Your task to perform on an android device: turn off data saver in the chrome app Image 0: 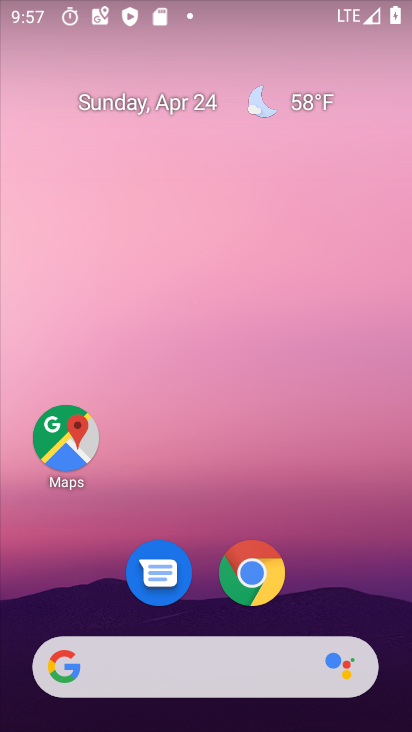
Step 0: drag from (336, 558) to (354, 8)
Your task to perform on an android device: turn off data saver in the chrome app Image 1: 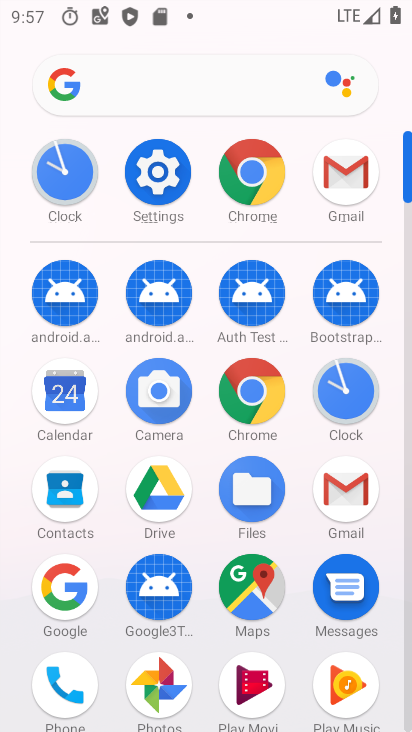
Step 1: click (255, 398)
Your task to perform on an android device: turn off data saver in the chrome app Image 2: 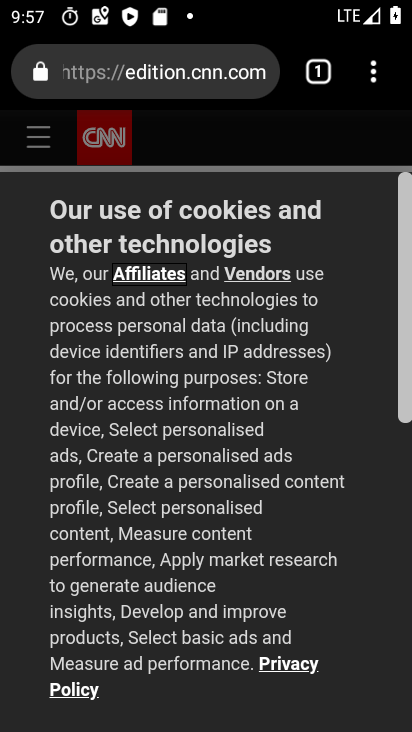
Step 2: drag from (377, 78) to (153, 559)
Your task to perform on an android device: turn off data saver in the chrome app Image 3: 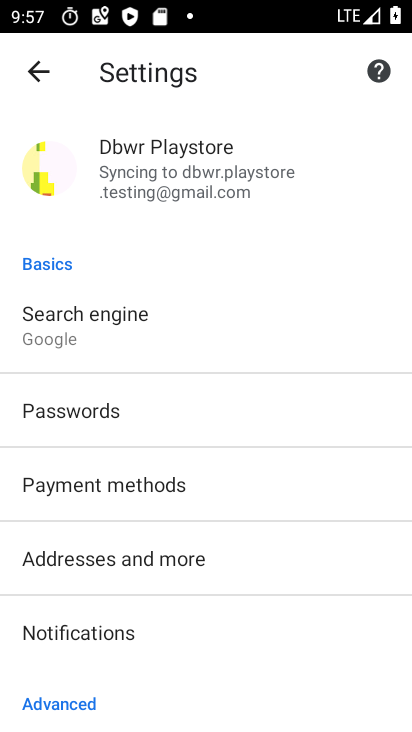
Step 3: drag from (228, 597) to (293, 101)
Your task to perform on an android device: turn off data saver in the chrome app Image 4: 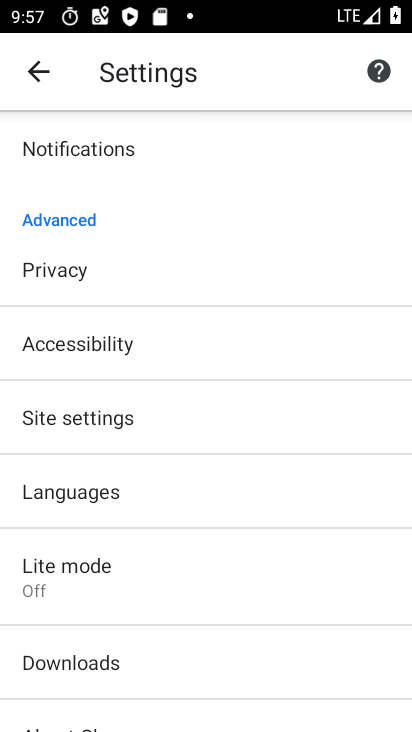
Step 4: click (38, 569)
Your task to perform on an android device: turn off data saver in the chrome app Image 5: 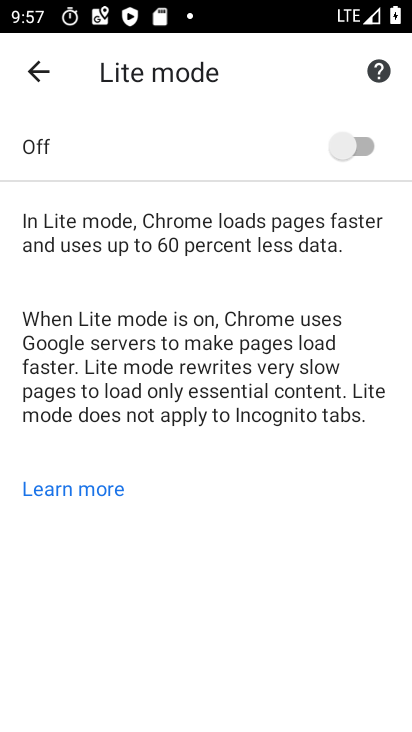
Step 5: task complete